Your task to perform on an android device: stop showing notifications on the lock screen Image 0: 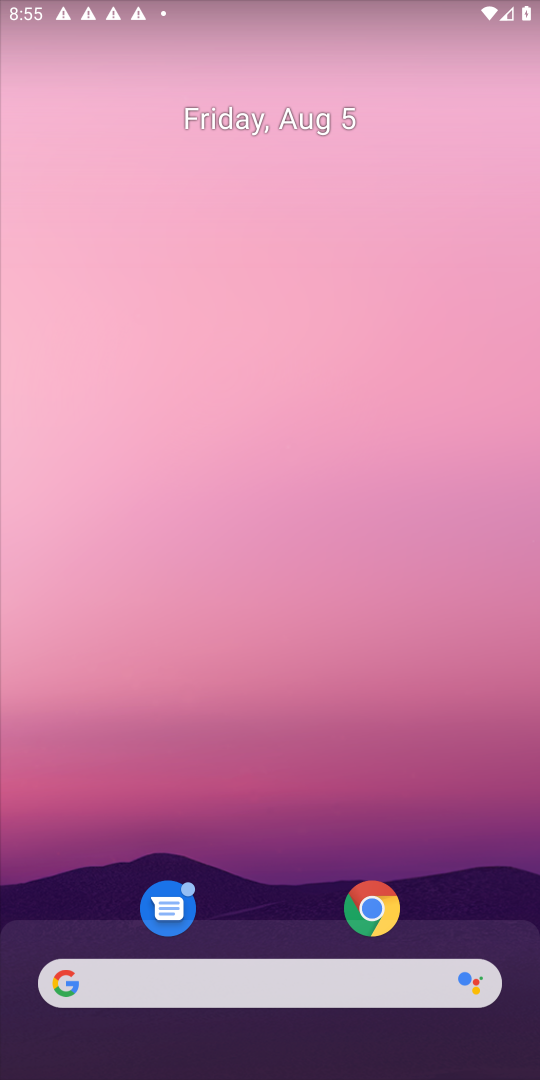
Step 0: drag from (266, 713) to (260, 96)
Your task to perform on an android device: stop showing notifications on the lock screen Image 1: 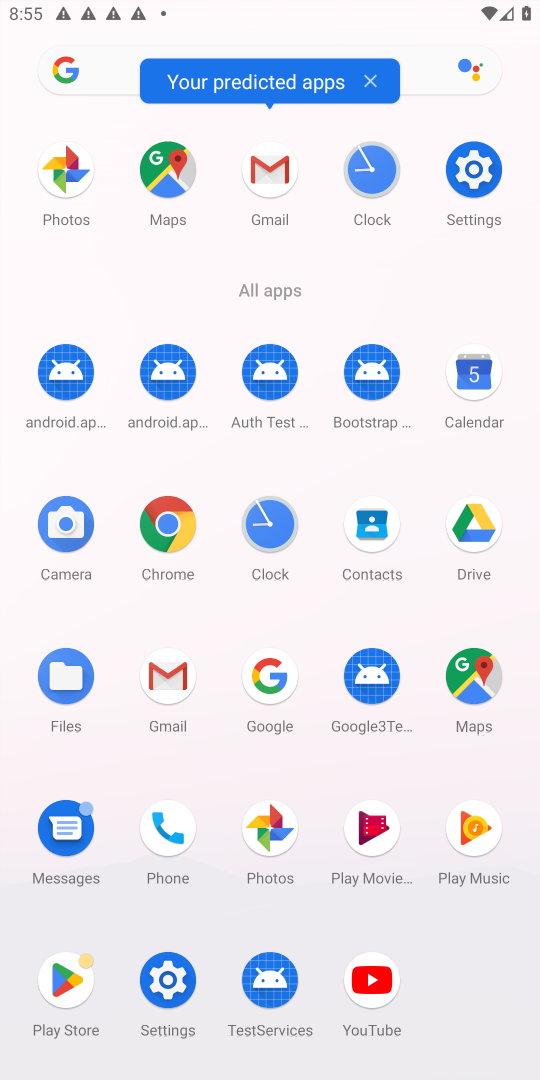
Step 1: click (460, 190)
Your task to perform on an android device: stop showing notifications on the lock screen Image 2: 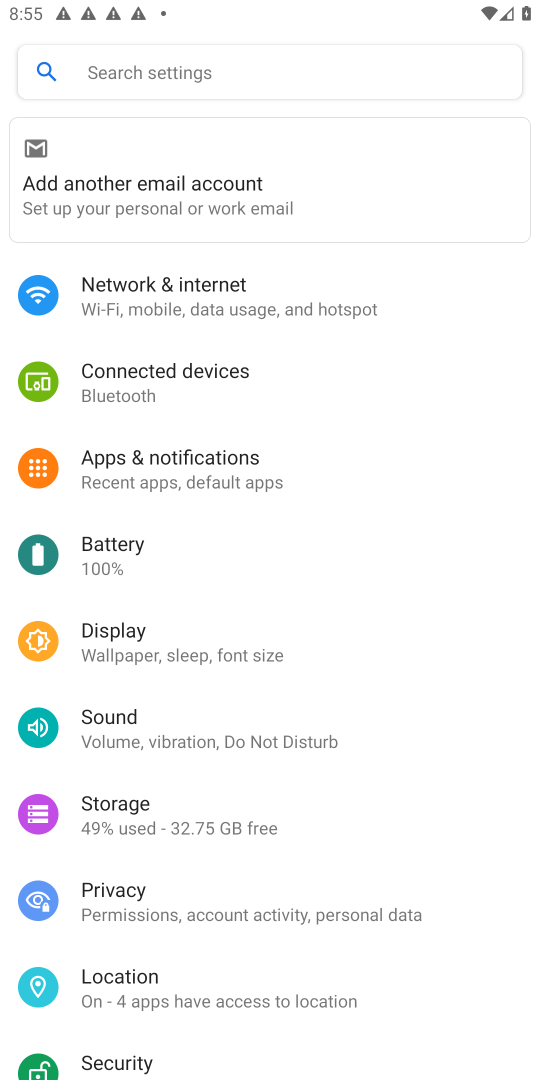
Step 2: click (187, 467)
Your task to perform on an android device: stop showing notifications on the lock screen Image 3: 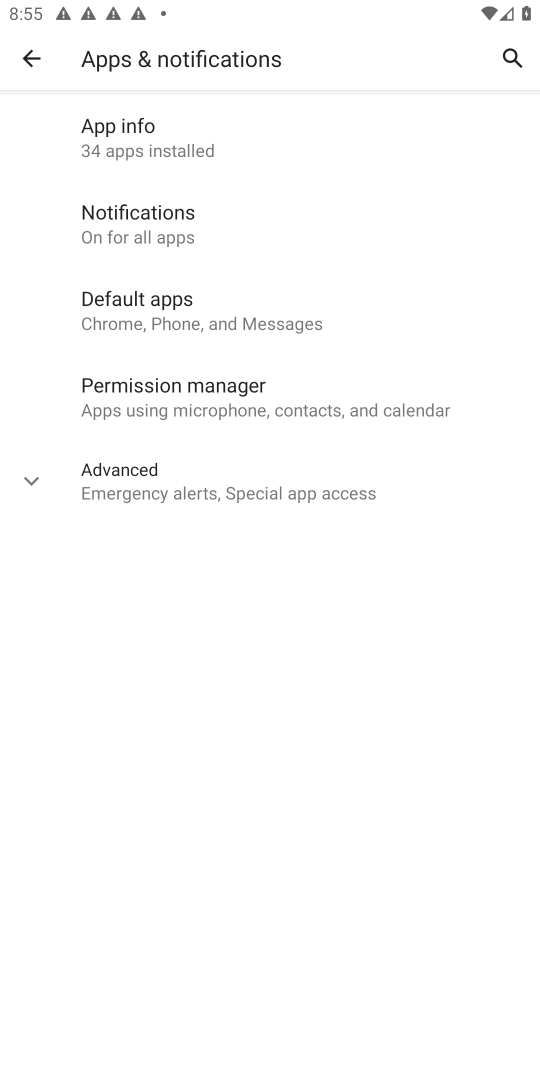
Step 3: click (138, 467)
Your task to perform on an android device: stop showing notifications on the lock screen Image 4: 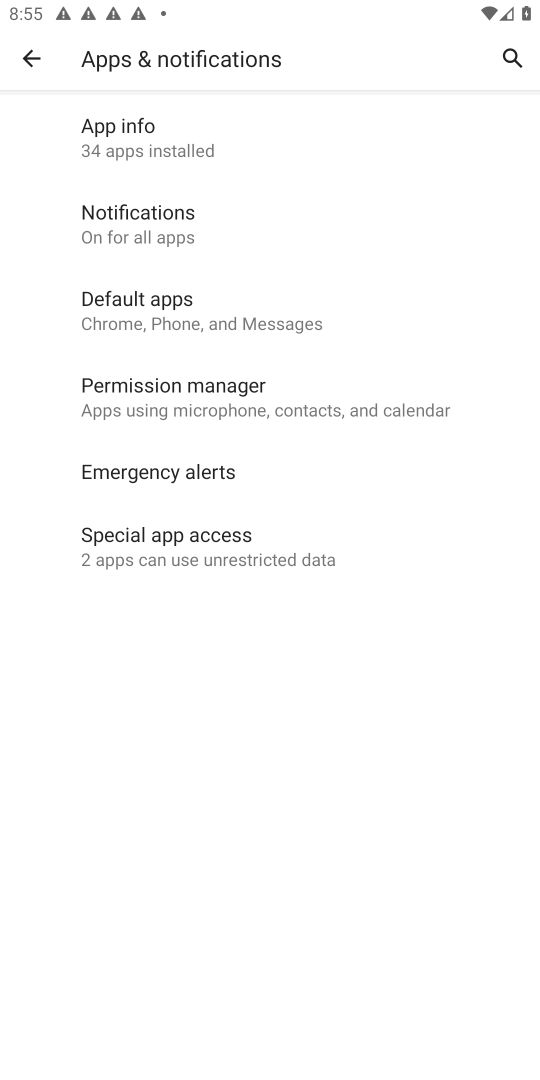
Step 4: click (262, 245)
Your task to perform on an android device: stop showing notifications on the lock screen Image 5: 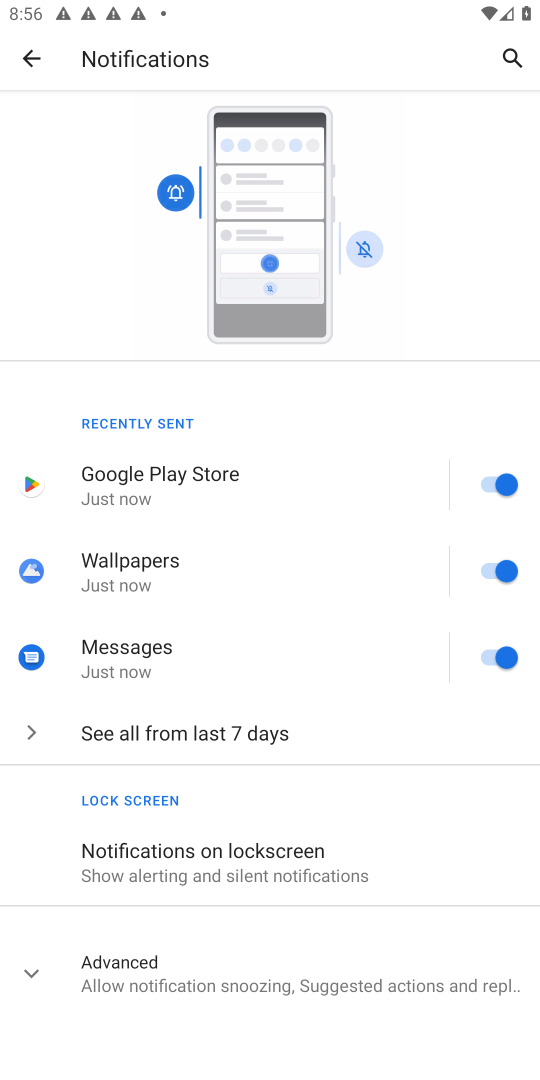
Step 5: click (333, 882)
Your task to perform on an android device: stop showing notifications on the lock screen Image 6: 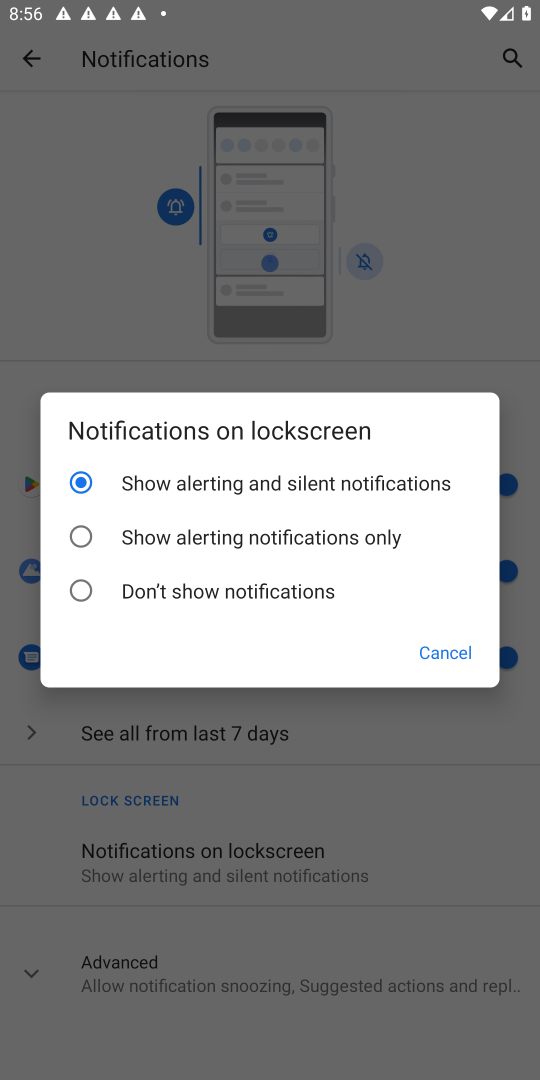
Step 6: click (266, 601)
Your task to perform on an android device: stop showing notifications on the lock screen Image 7: 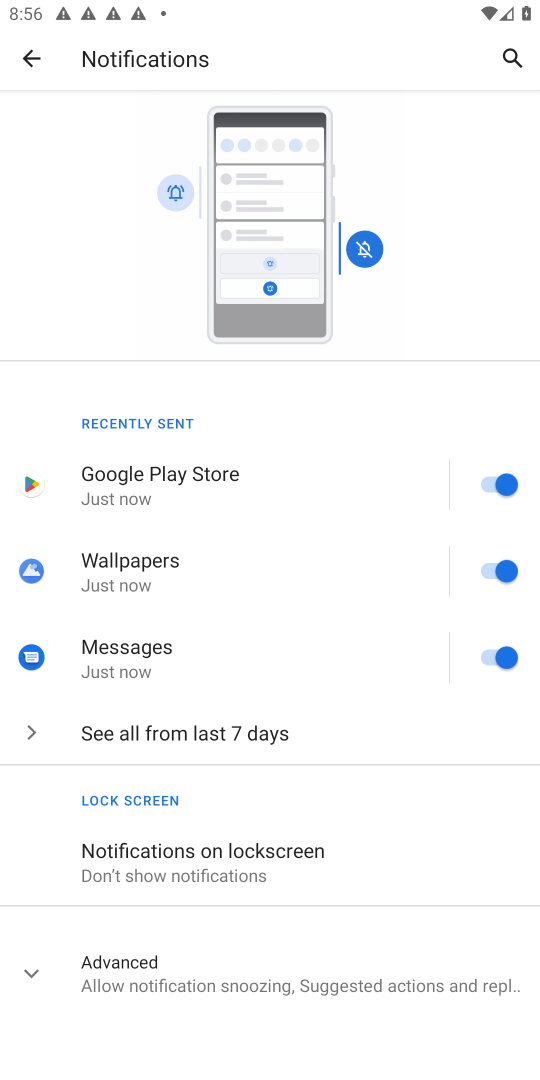
Step 7: task complete